Your task to perform on an android device: check battery use Image 0: 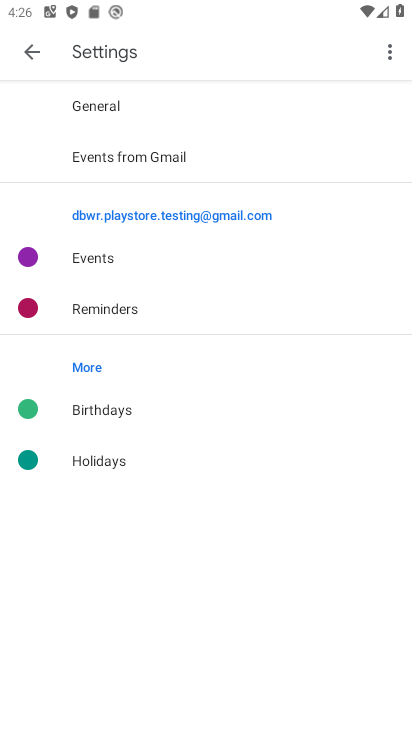
Step 0: press home button
Your task to perform on an android device: check battery use Image 1: 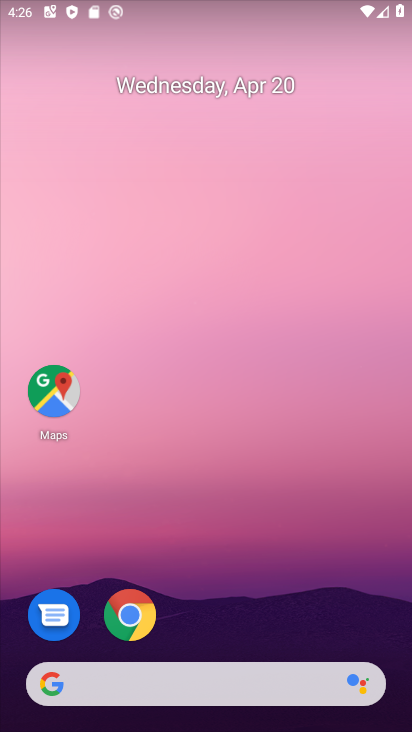
Step 1: drag from (217, 628) to (244, 124)
Your task to perform on an android device: check battery use Image 2: 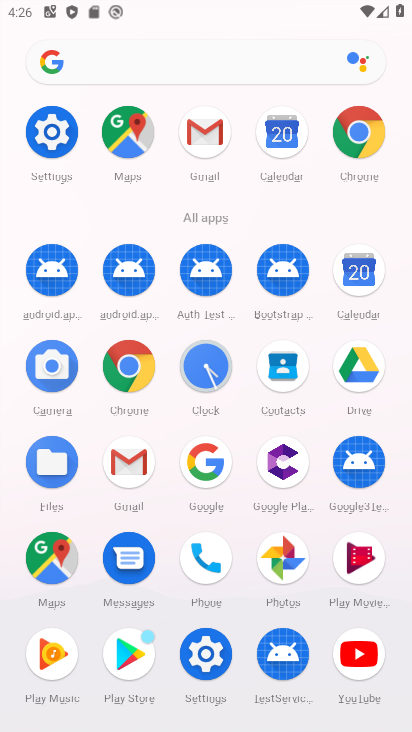
Step 2: click (54, 142)
Your task to perform on an android device: check battery use Image 3: 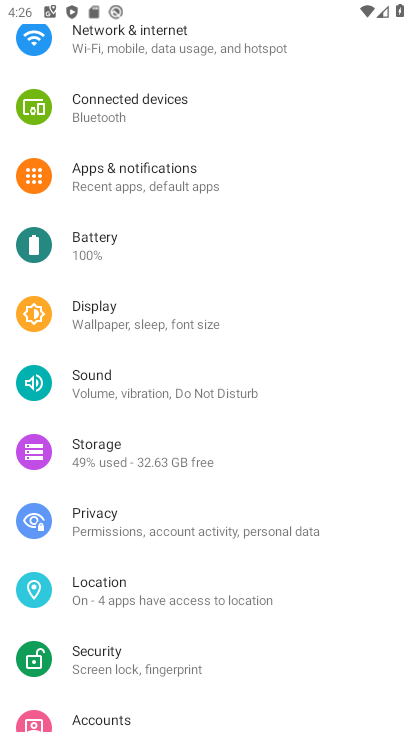
Step 3: drag from (153, 183) to (132, 572)
Your task to perform on an android device: check battery use Image 4: 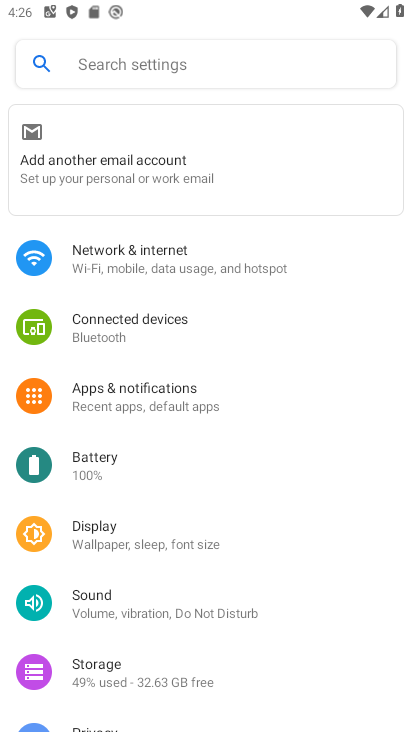
Step 4: click (131, 467)
Your task to perform on an android device: check battery use Image 5: 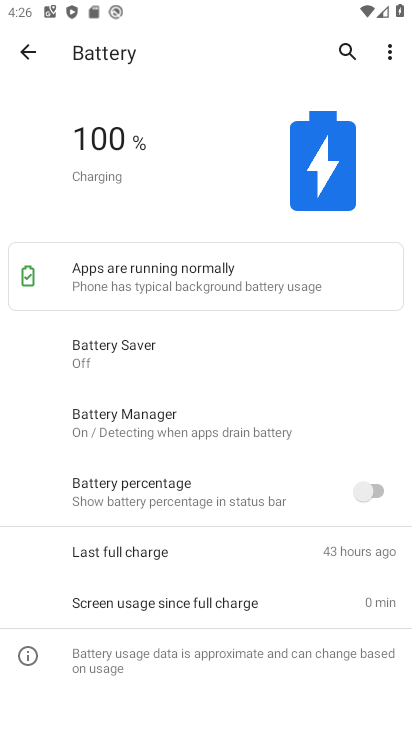
Step 5: click (381, 53)
Your task to perform on an android device: check battery use Image 6: 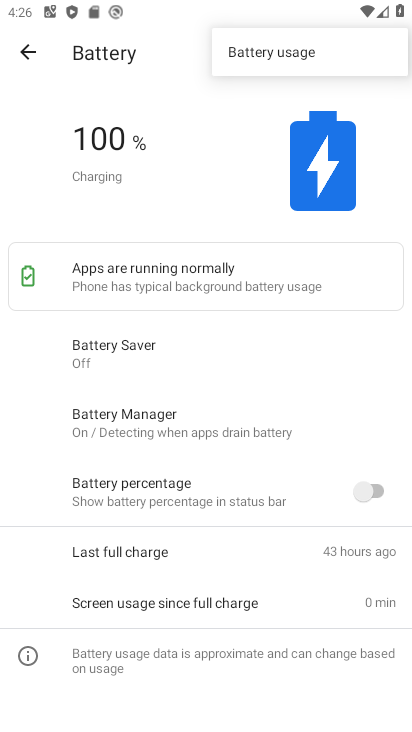
Step 6: click (328, 68)
Your task to perform on an android device: check battery use Image 7: 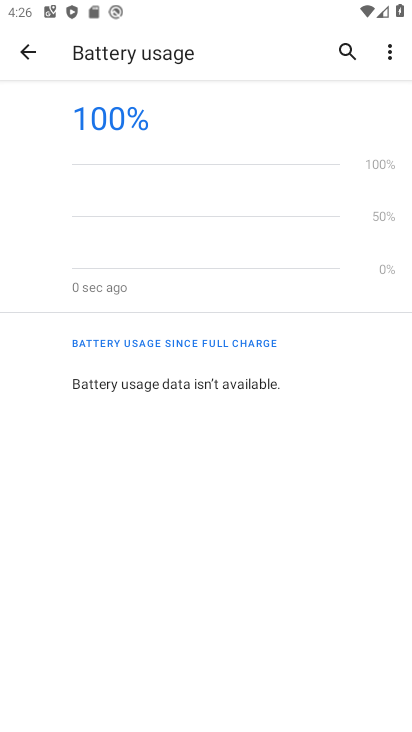
Step 7: task complete